Your task to perform on an android device: turn on wifi Image 0: 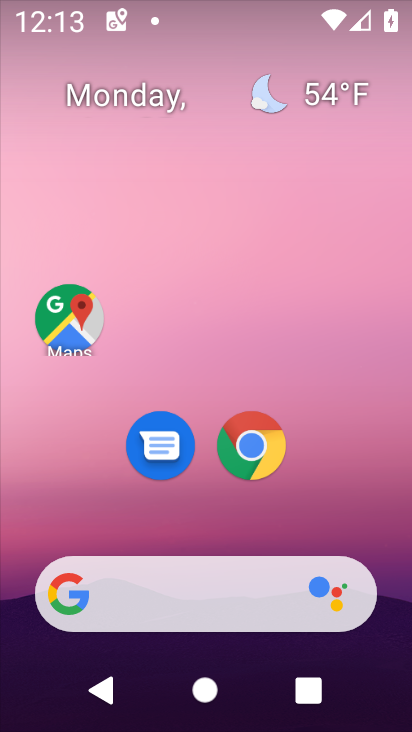
Step 0: drag from (390, 533) to (350, 119)
Your task to perform on an android device: turn on wifi Image 1: 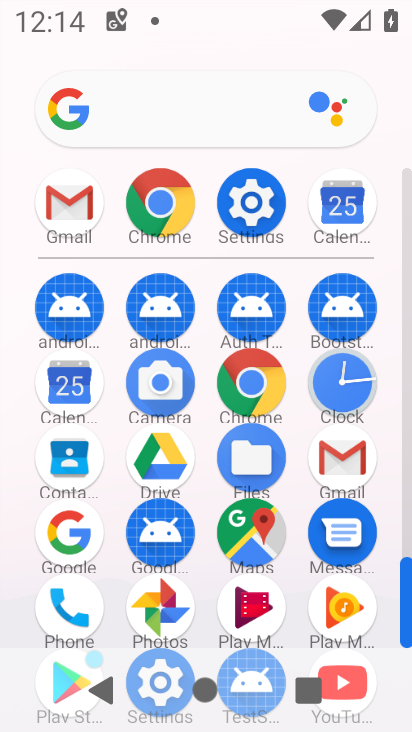
Step 1: click (245, 216)
Your task to perform on an android device: turn on wifi Image 2: 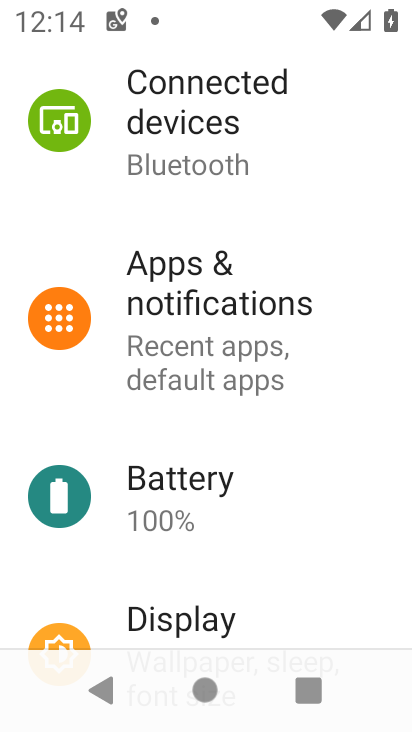
Step 2: drag from (270, 321) to (290, 610)
Your task to perform on an android device: turn on wifi Image 3: 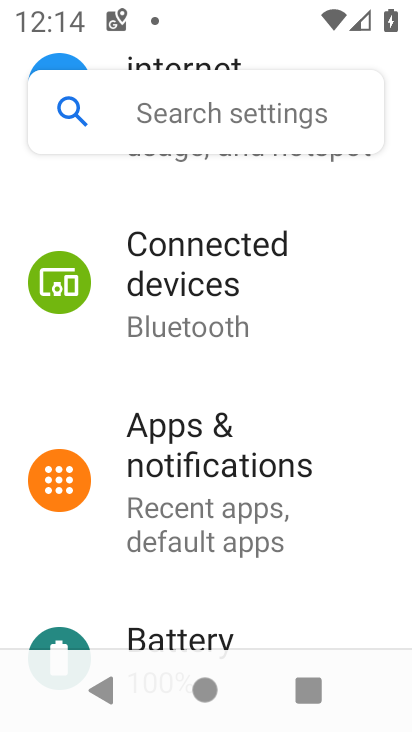
Step 3: drag from (307, 264) to (338, 607)
Your task to perform on an android device: turn on wifi Image 4: 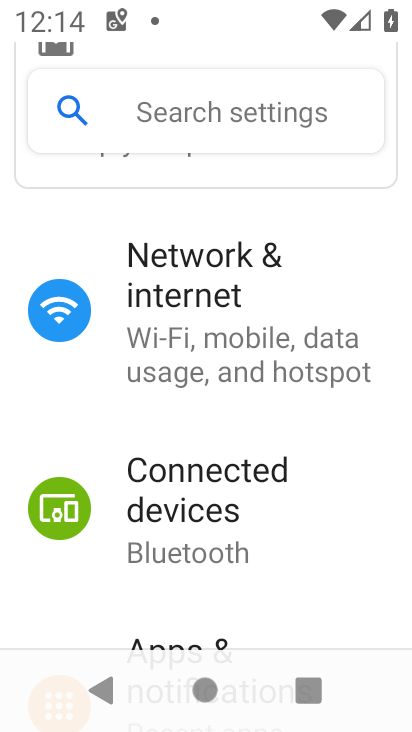
Step 4: click (268, 315)
Your task to perform on an android device: turn on wifi Image 5: 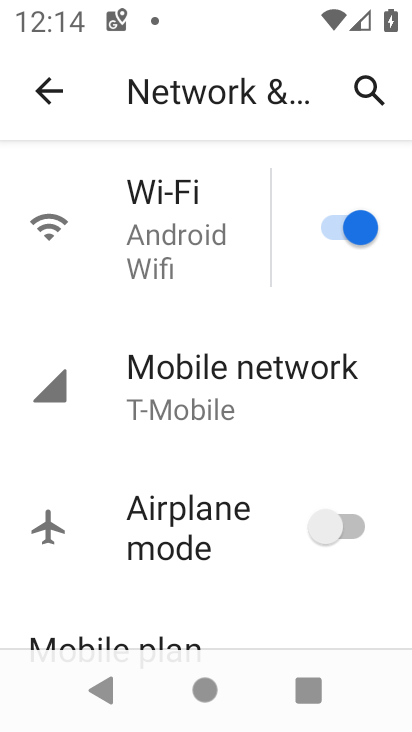
Step 5: task complete